Your task to perform on an android device: Go to Yahoo.com Image 0: 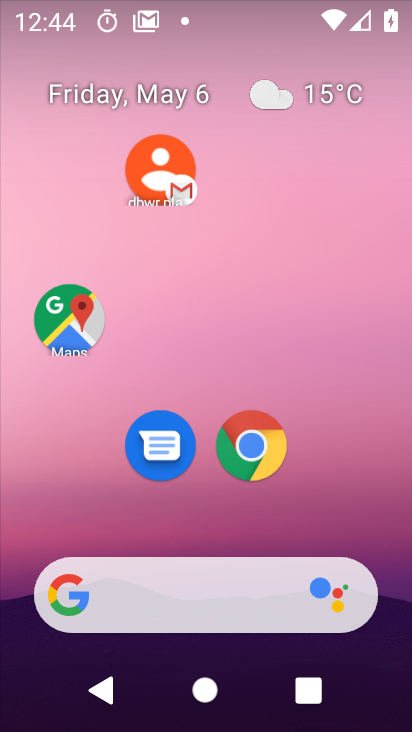
Step 0: drag from (383, 655) to (217, 186)
Your task to perform on an android device: Go to Yahoo.com Image 1: 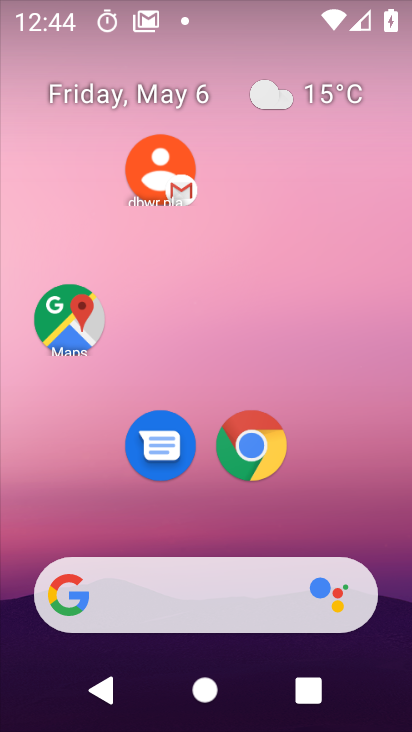
Step 1: drag from (333, 517) to (183, 113)
Your task to perform on an android device: Go to Yahoo.com Image 2: 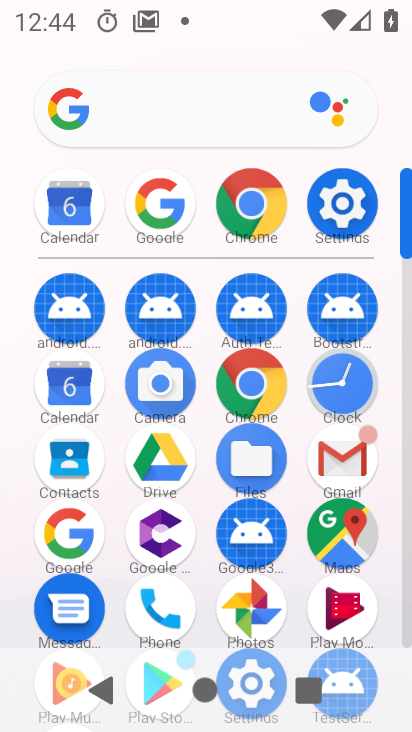
Step 2: click (249, 208)
Your task to perform on an android device: Go to Yahoo.com Image 3: 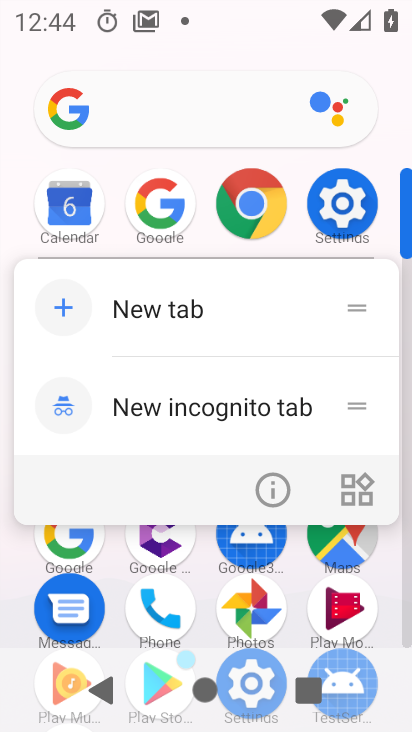
Step 3: click (249, 208)
Your task to perform on an android device: Go to Yahoo.com Image 4: 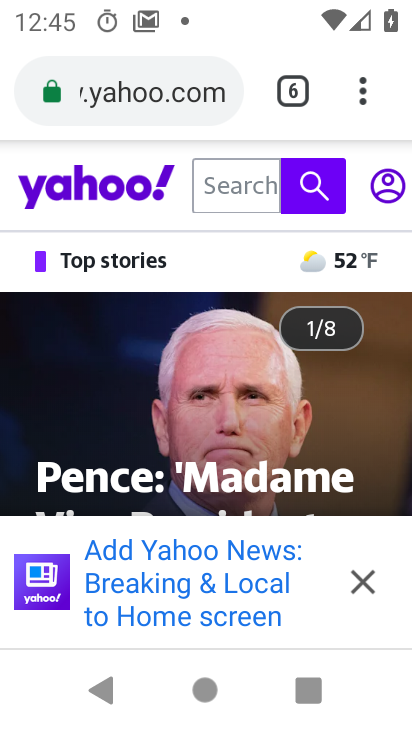
Step 4: task complete